Your task to perform on an android device: Open Chrome and go to the settings page Image 0: 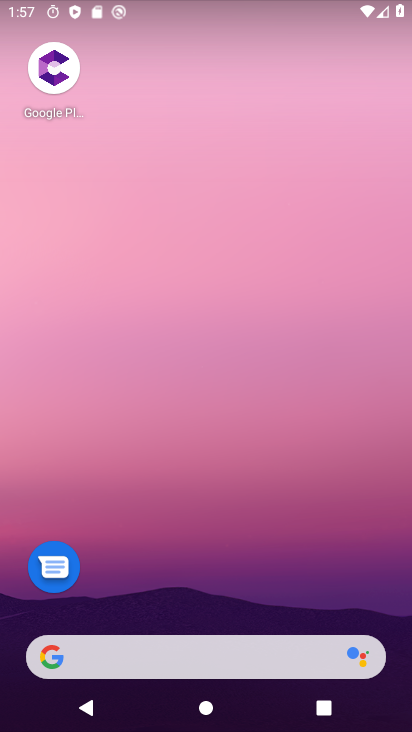
Step 0: drag from (203, 633) to (197, 215)
Your task to perform on an android device: Open Chrome and go to the settings page Image 1: 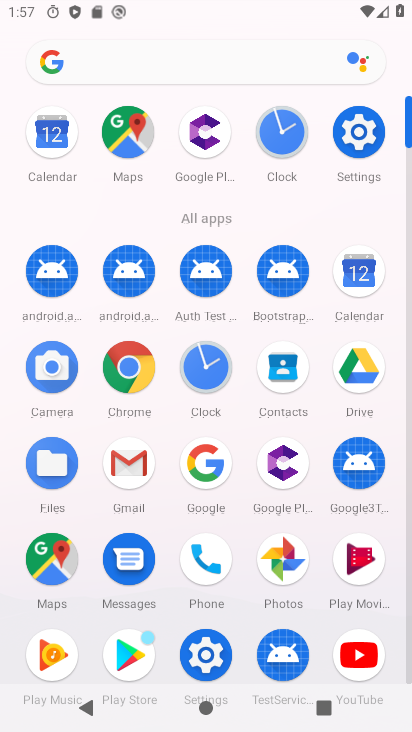
Step 1: click (125, 370)
Your task to perform on an android device: Open Chrome and go to the settings page Image 2: 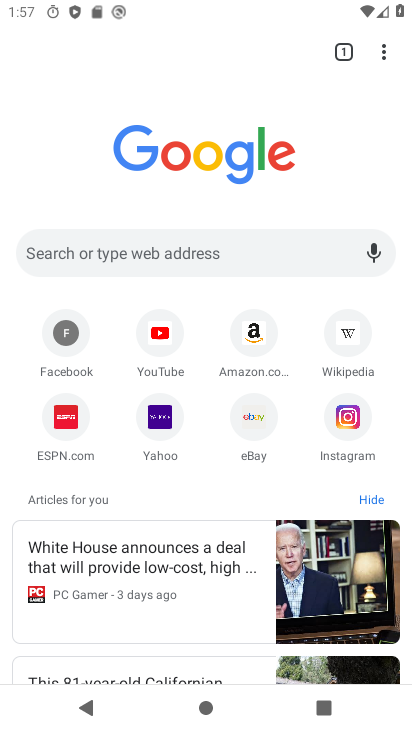
Step 2: click (388, 45)
Your task to perform on an android device: Open Chrome and go to the settings page Image 3: 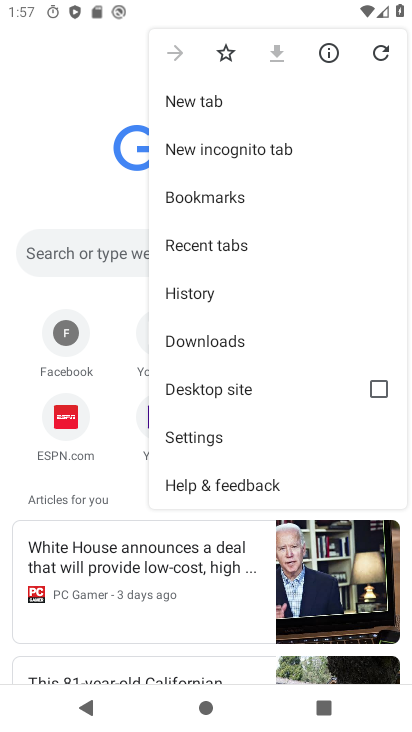
Step 3: click (208, 441)
Your task to perform on an android device: Open Chrome and go to the settings page Image 4: 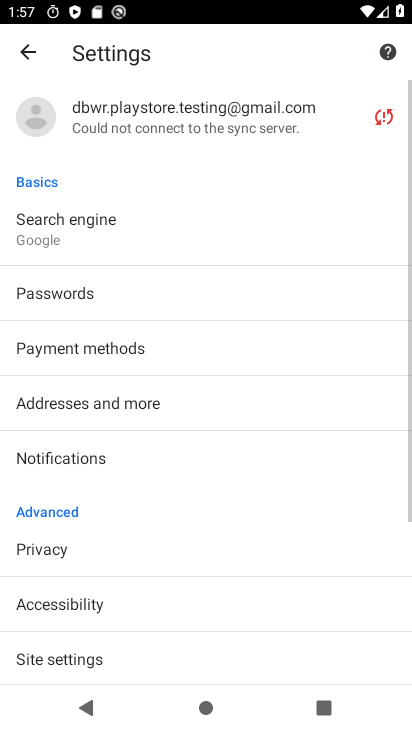
Step 4: task complete